Your task to perform on an android device: read, delete, or share a saved page in the chrome app Image 0: 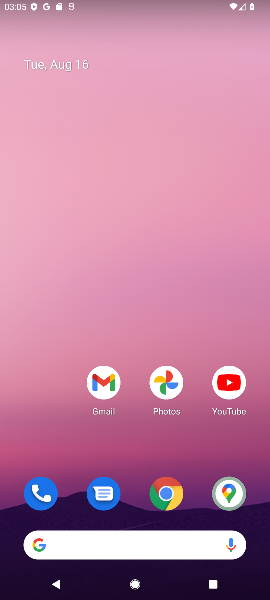
Step 0: press home button
Your task to perform on an android device: read, delete, or share a saved page in the chrome app Image 1: 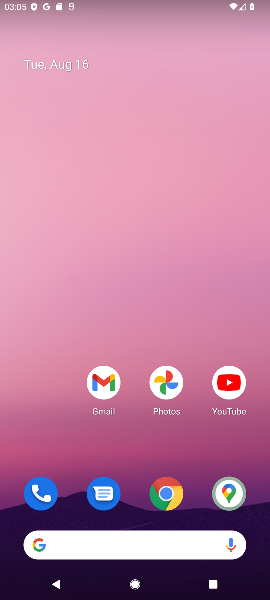
Step 1: drag from (31, 452) to (97, 83)
Your task to perform on an android device: read, delete, or share a saved page in the chrome app Image 2: 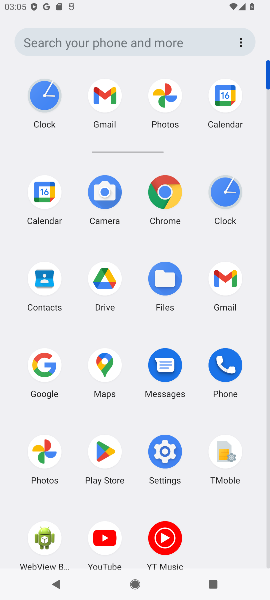
Step 2: click (165, 199)
Your task to perform on an android device: read, delete, or share a saved page in the chrome app Image 3: 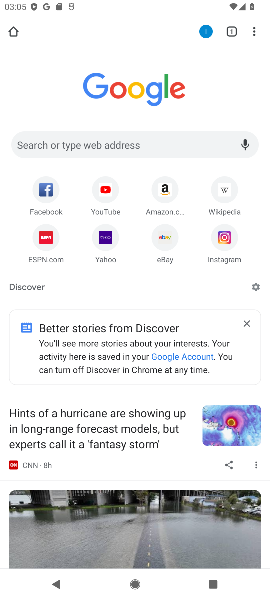
Step 3: click (256, 32)
Your task to perform on an android device: read, delete, or share a saved page in the chrome app Image 4: 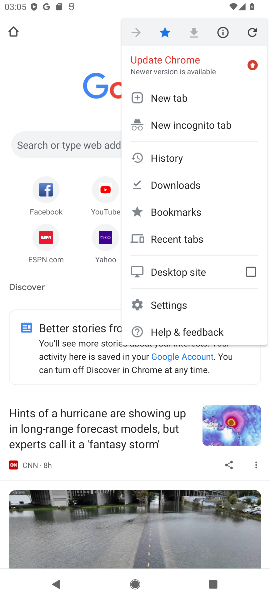
Step 4: click (183, 188)
Your task to perform on an android device: read, delete, or share a saved page in the chrome app Image 5: 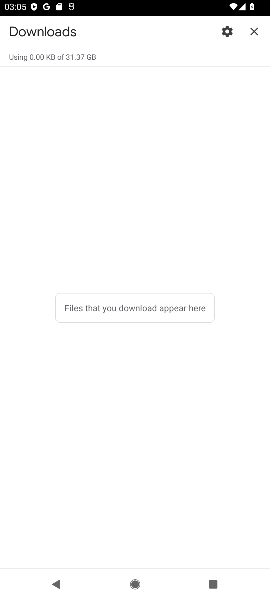
Step 5: task complete